Your task to perform on an android device: turn off data saver in the chrome app Image 0: 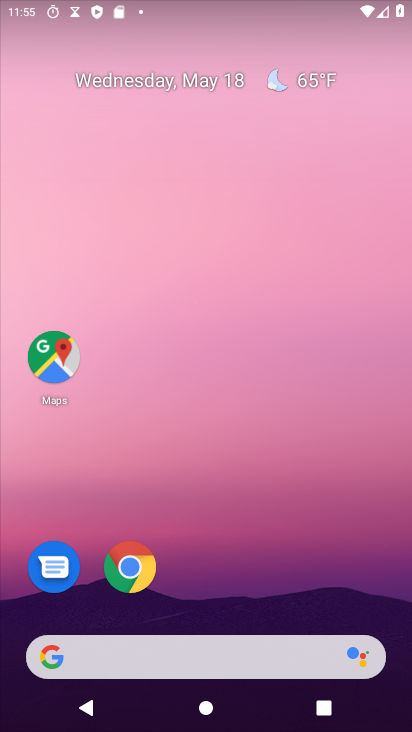
Step 0: click (128, 566)
Your task to perform on an android device: turn off data saver in the chrome app Image 1: 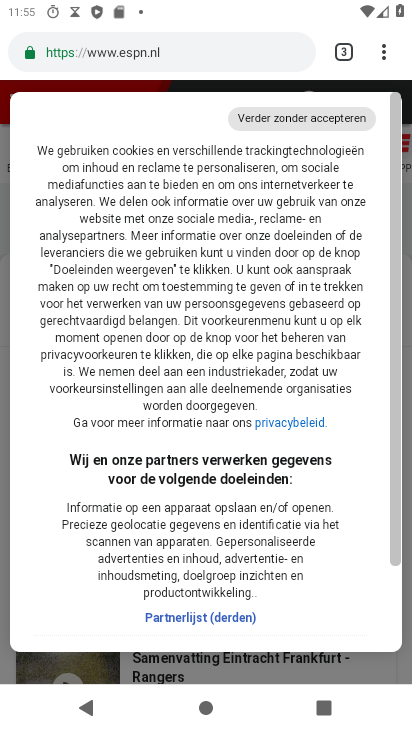
Step 1: click (385, 58)
Your task to perform on an android device: turn off data saver in the chrome app Image 2: 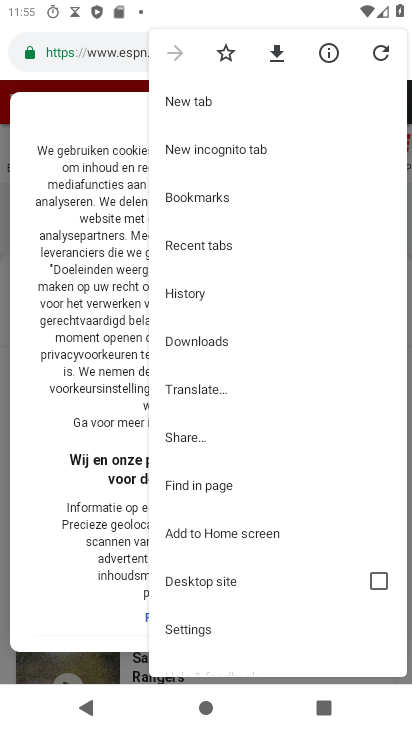
Step 2: click (200, 627)
Your task to perform on an android device: turn off data saver in the chrome app Image 3: 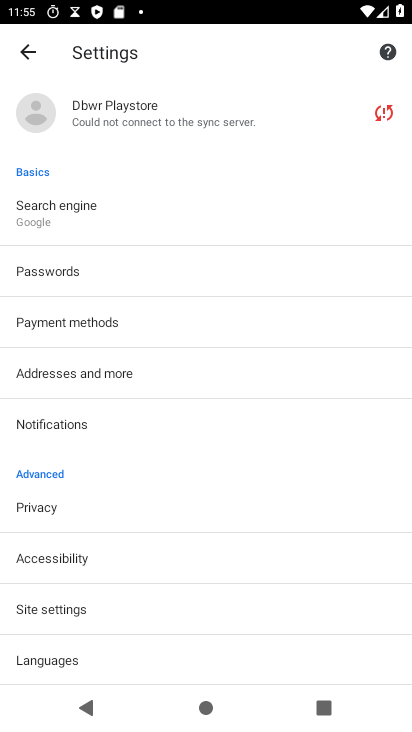
Step 3: drag from (217, 628) to (218, 463)
Your task to perform on an android device: turn off data saver in the chrome app Image 4: 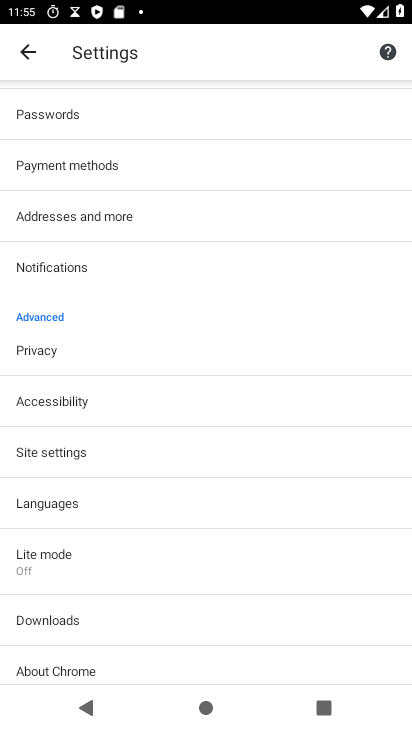
Step 4: click (94, 571)
Your task to perform on an android device: turn off data saver in the chrome app Image 5: 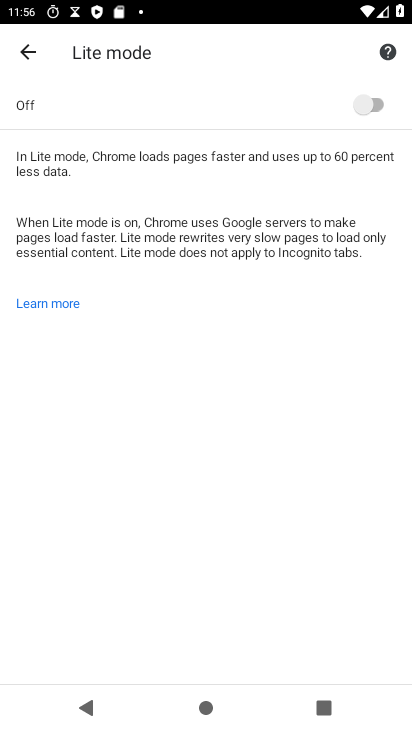
Step 5: task complete